Your task to perform on an android device: set the stopwatch Image 0: 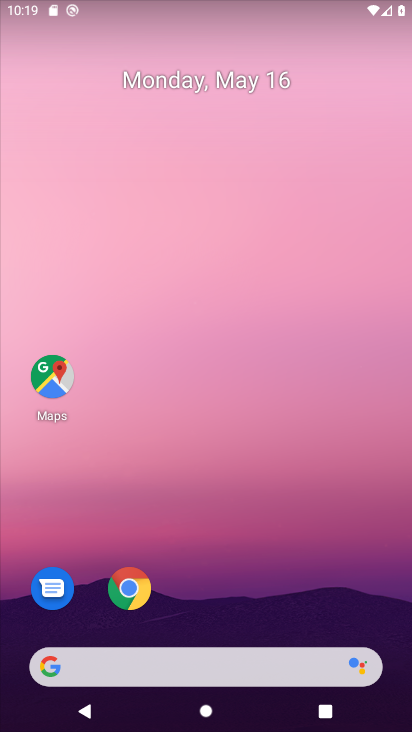
Step 0: drag from (196, 625) to (249, 165)
Your task to perform on an android device: set the stopwatch Image 1: 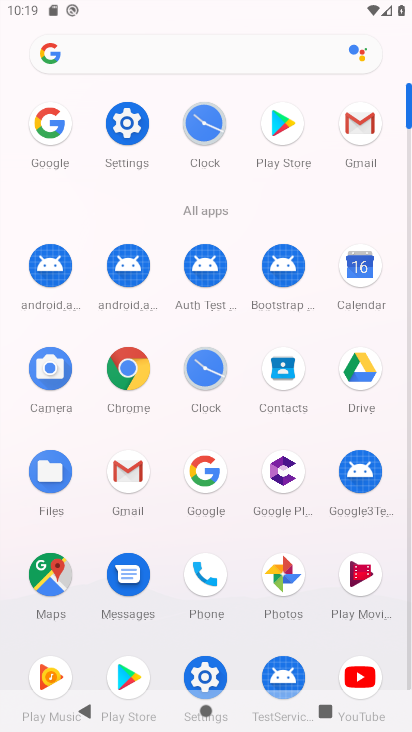
Step 1: click (203, 120)
Your task to perform on an android device: set the stopwatch Image 2: 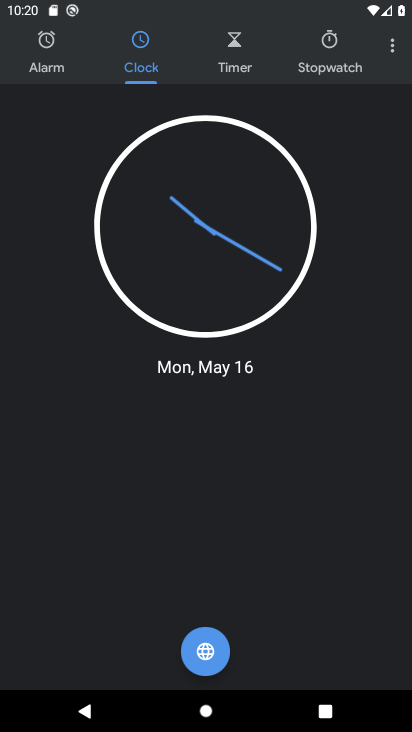
Step 2: click (329, 56)
Your task to perform on an android device: set the stopwatch Image 3: 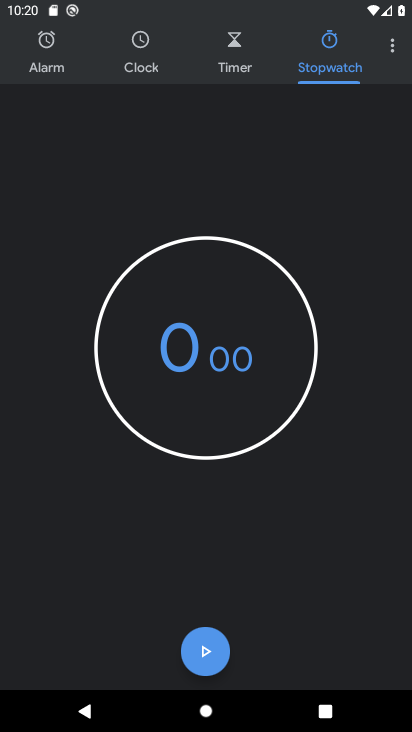
Step 3: click (203, 651)
Your task to perform on an android device: set the stopwatch Image 4: 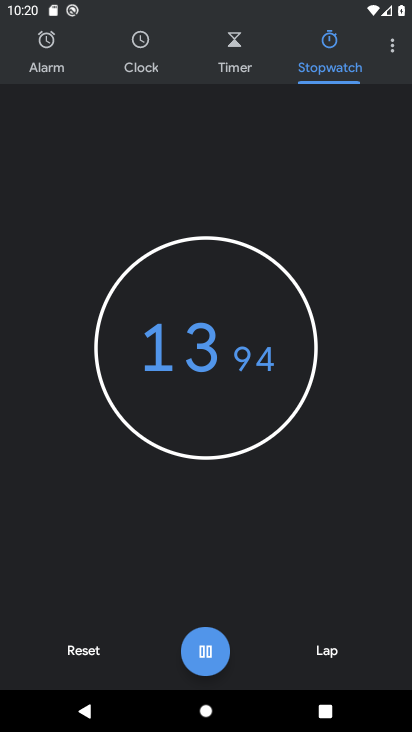
Step 4: task complete